Your task to perform on an android device: uninstall "Facebook Lite" Image 0: 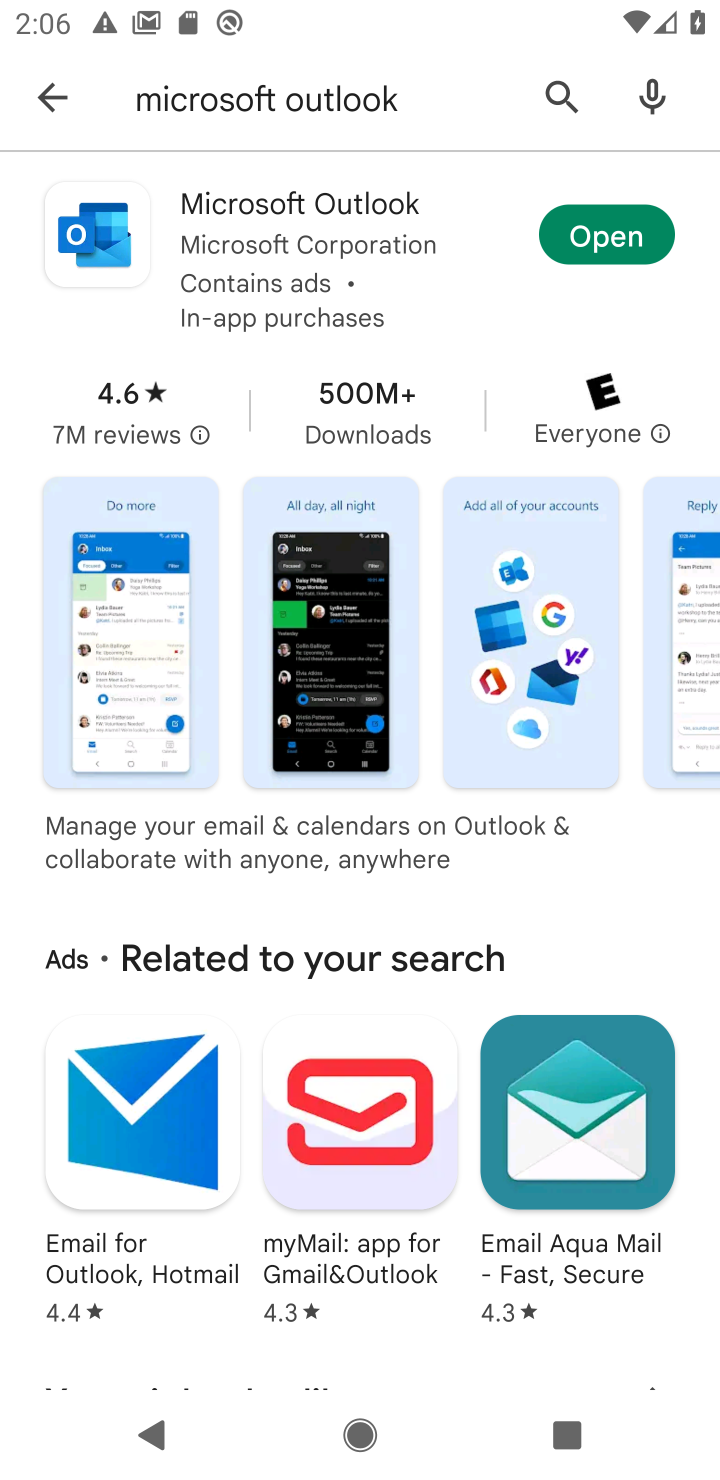
Step 0: press home button
Your task to perform on an android device: uninstall "Facebook Lite" Image 1: 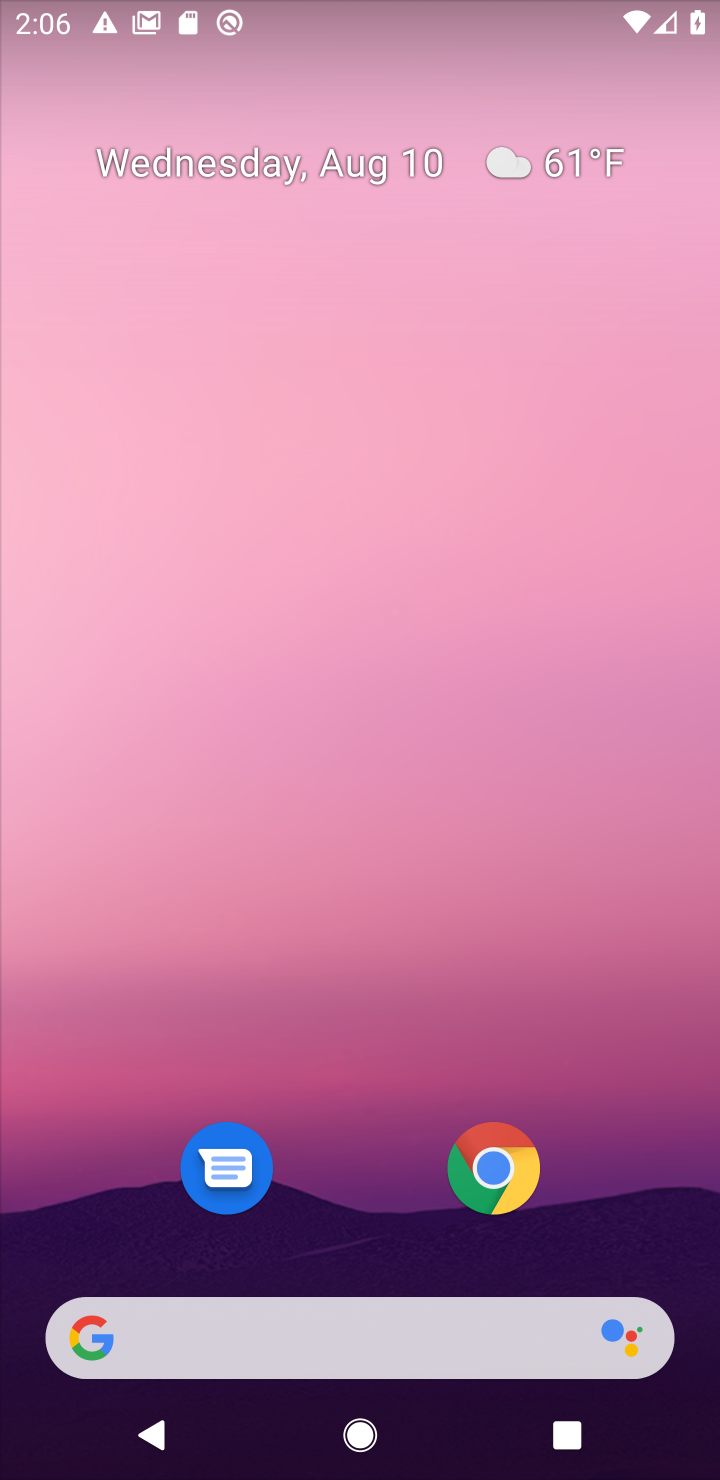
Step 1: drag from (362, 1317) to (387, 105)
Your task to perform on an android device: uninstall "Facebook Lite" Image 2: 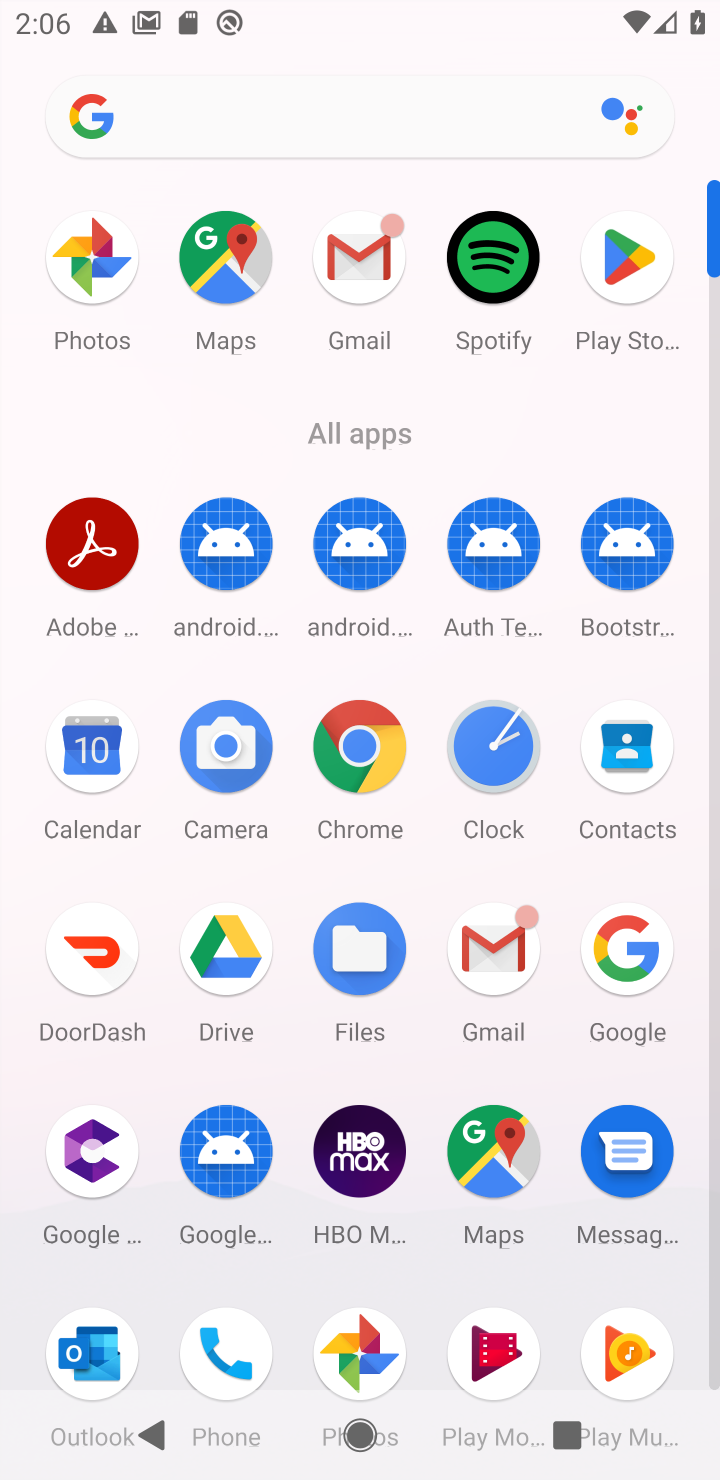
Step 2: click (635, 274)
Your task to perform on an android device: uninstall "Facebook Lite" Image 3: 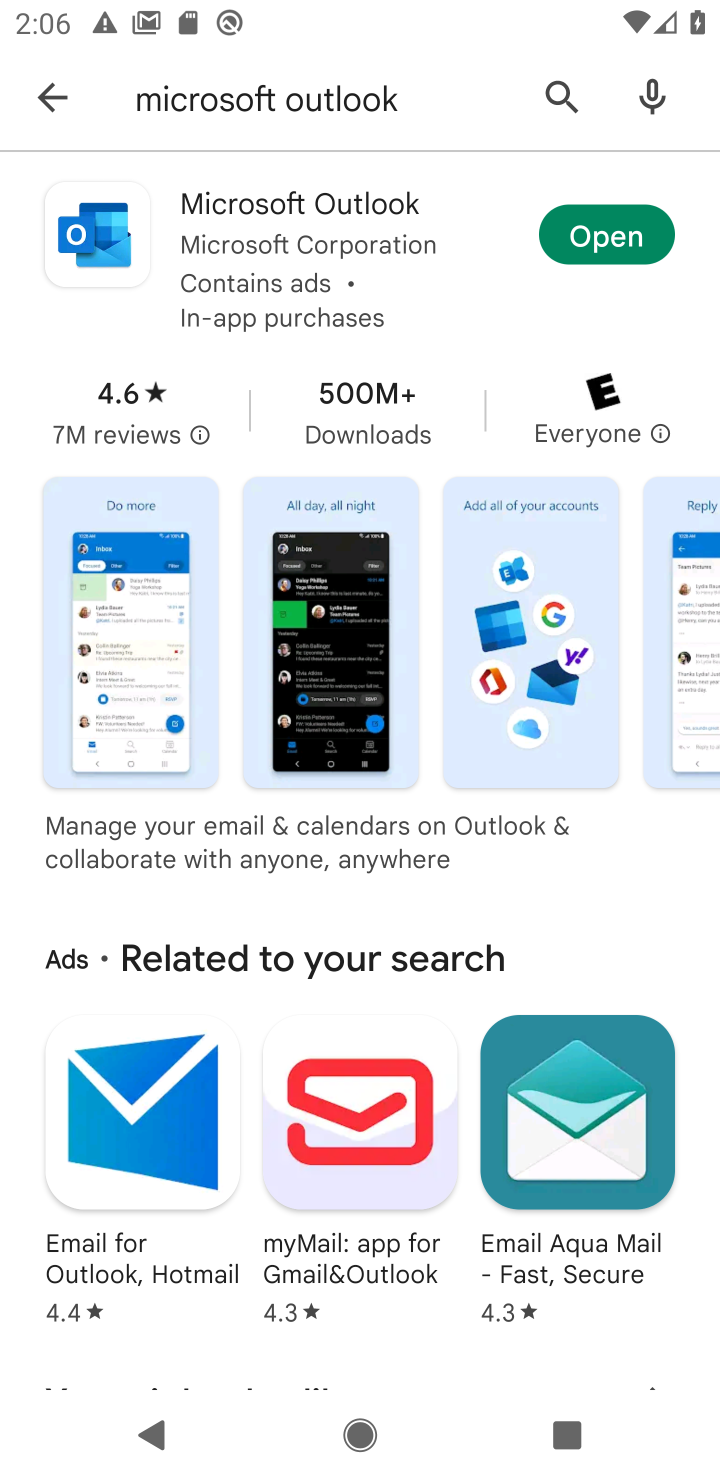
Step 3: click (567, 97)
Your task to perform on an android device: uninstall "Facebook Lite" Image 4: 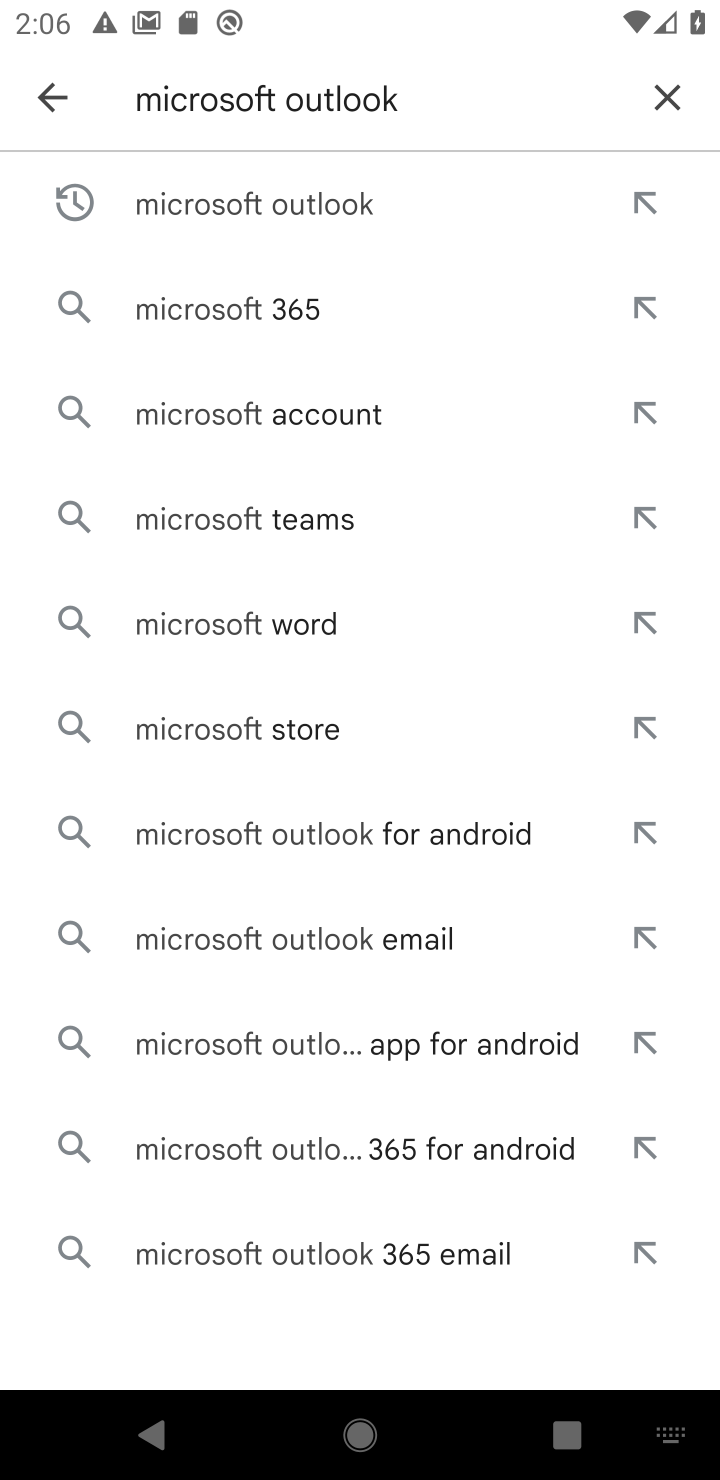
Step 4: press back button
Your task to perform on an android device: uninstall "Facebook Lite" Image 5: 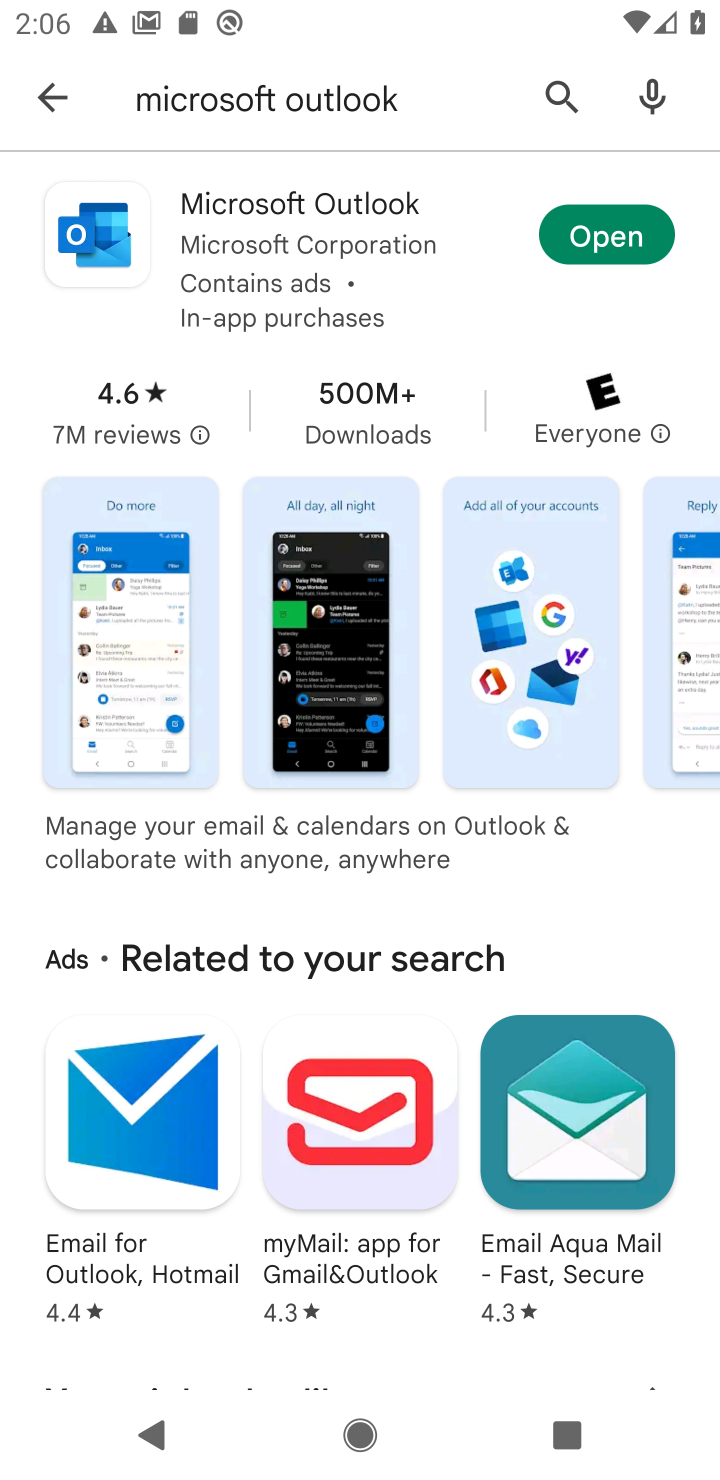
Step 5: press back button
Your task to perform on an android device: uninstall "Facebook Lite" Image 6: 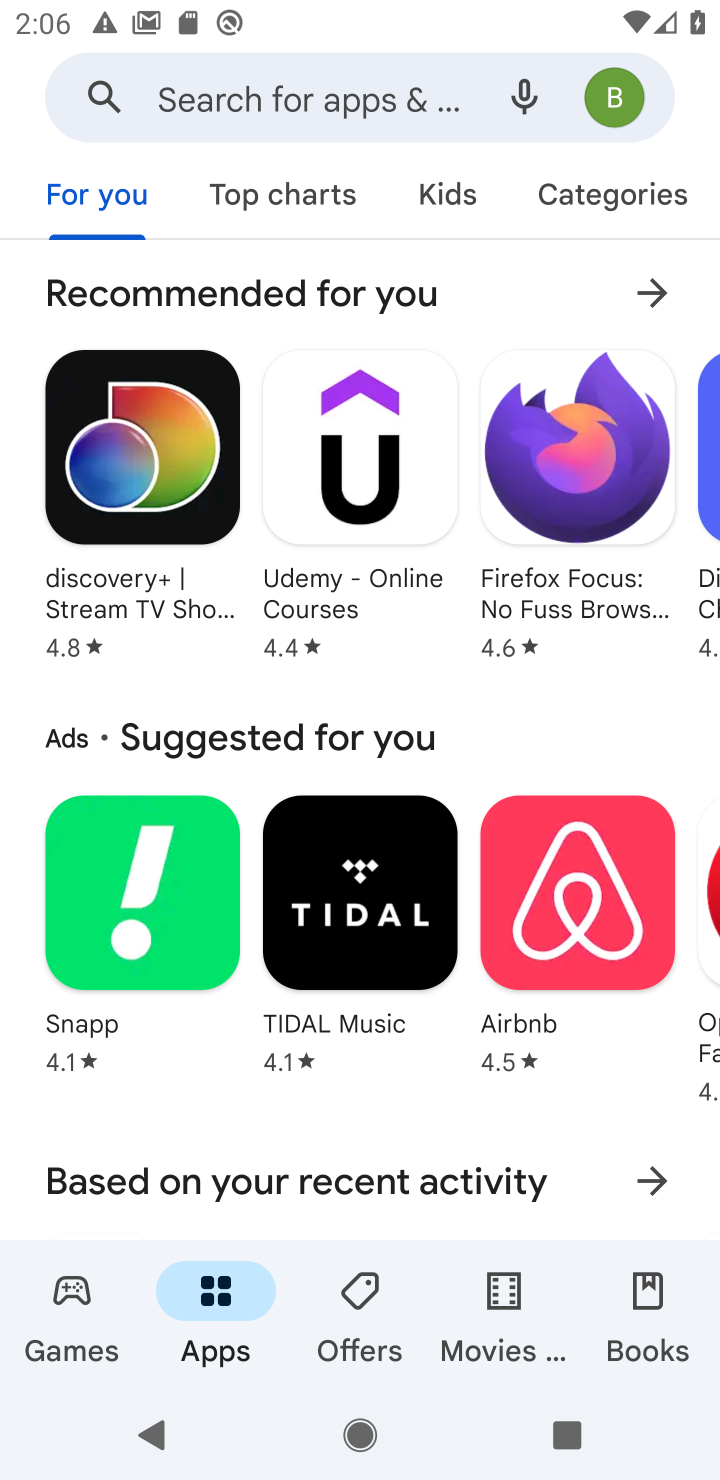
Step 6: click (319, 91)
Your task to perform on an android device: uninstall "Facebook Lite" Image 7: 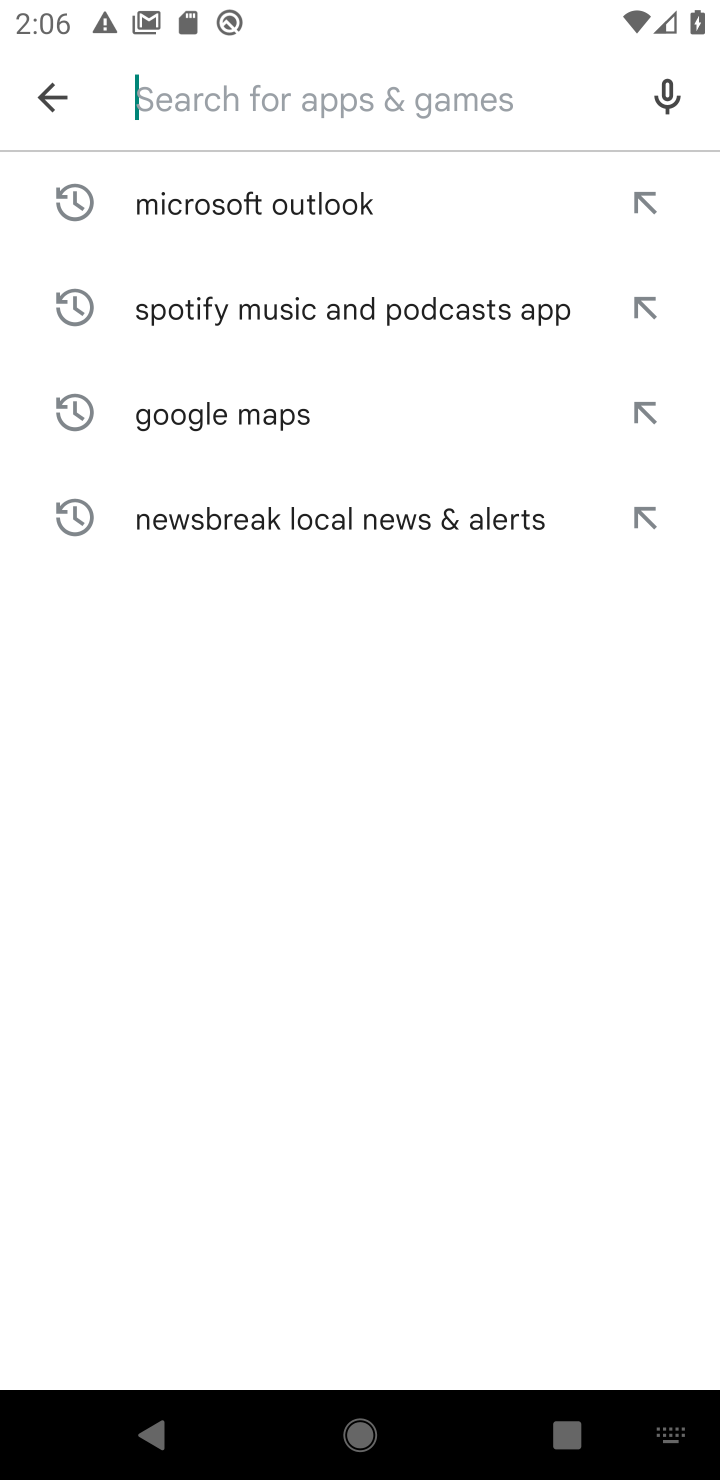
Step 7: type "Facebook Lite"
Your task to perform on an android device: uninstall "Facebook Lite" Image 8: 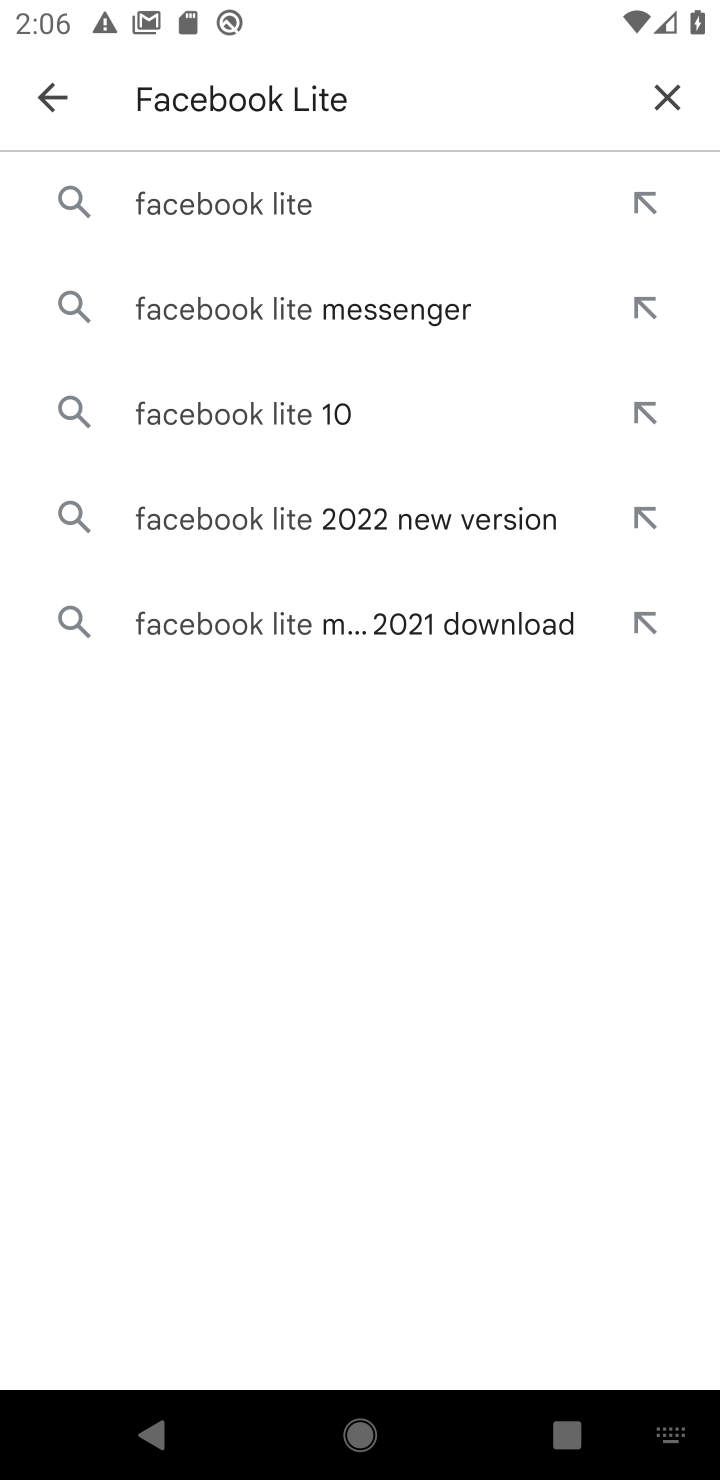
Step 8: click (264, 202)
Your task to perform on an android device: uninstall "Facebook Lite" Image 9: 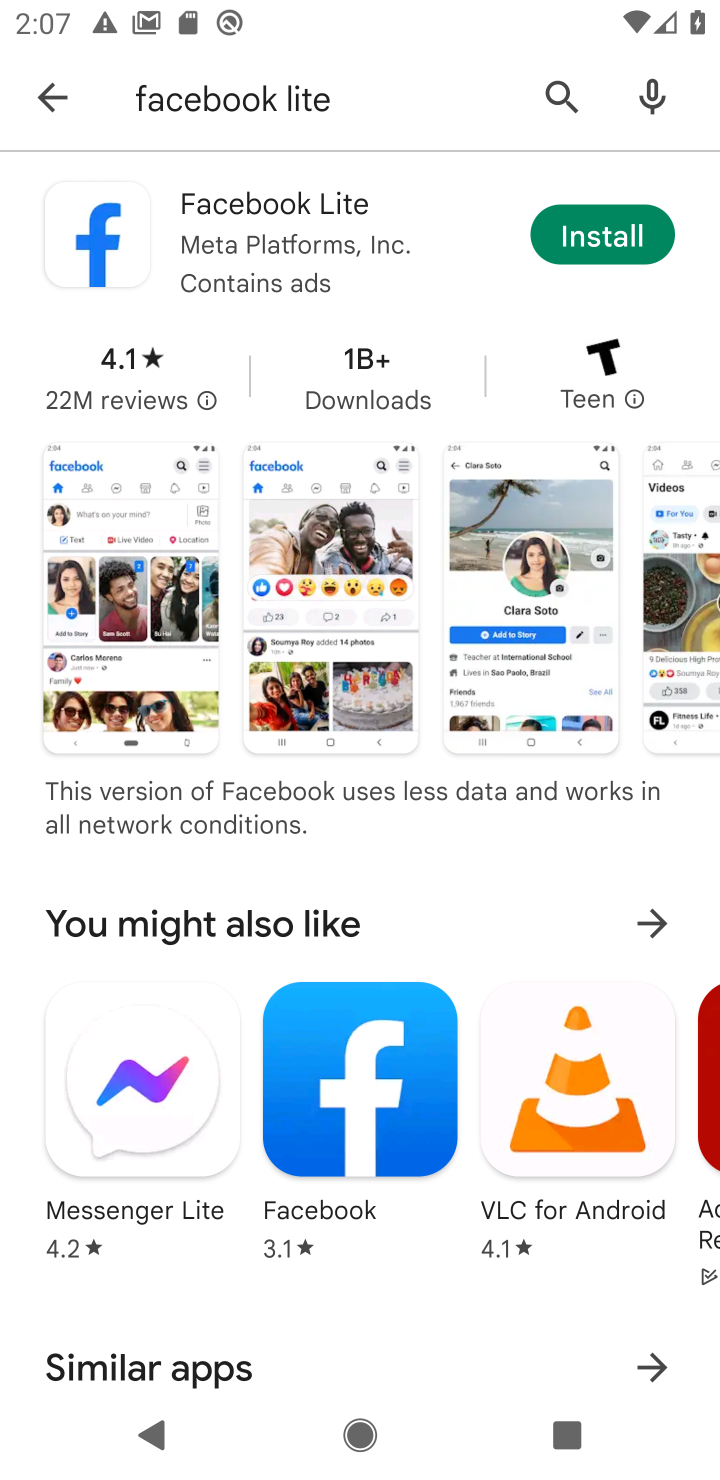
Step 9: task complete